Your task to perform on an android device: make emails show in primary in the gmail app Image 0: 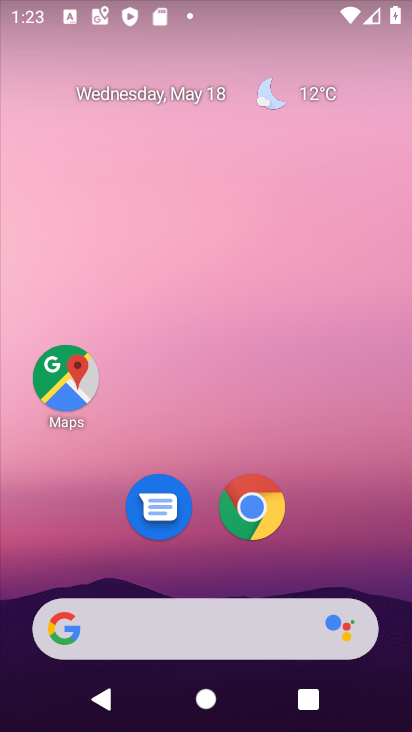
Step 0: drag from (384, 580) to (289, 97)
Your task to perform on an android device: make emails show in primary in the gmail app Image 1: 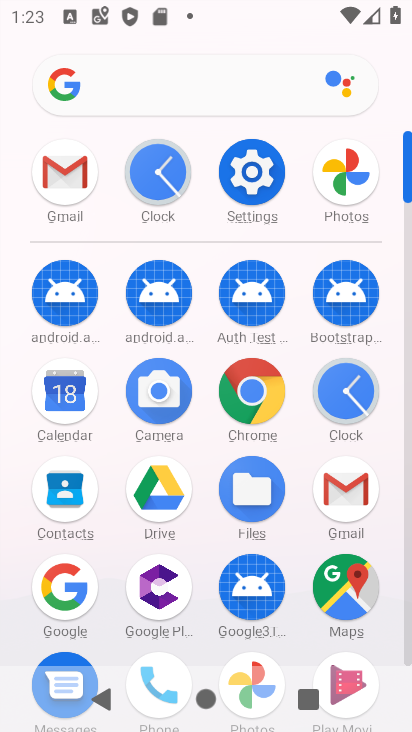
Step 1: click (410, 650)
Your task to perform on an android device: make emails show in primary in the gmail app Image 2: 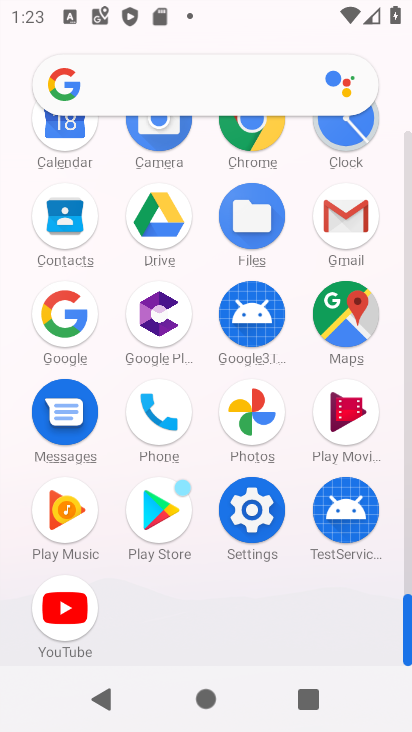
Step 2: click (346, 216)
Your task to perform on an android device: make emails show in primary in the gmail app Image 3: 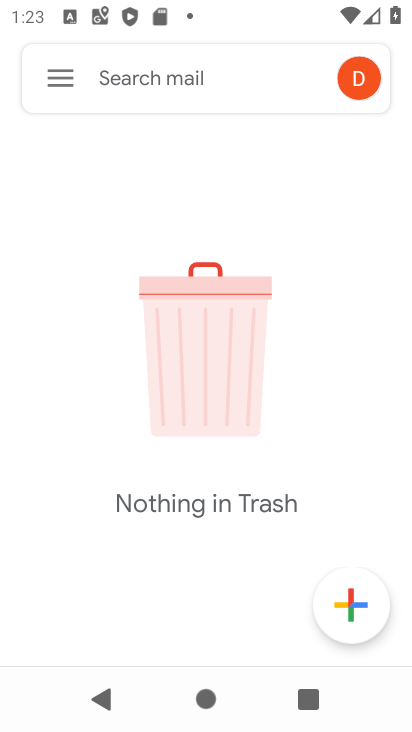
Step 3: click (74, 75)
Your task to perform on an android device: make emails show in primary in the gmail app Image 4: 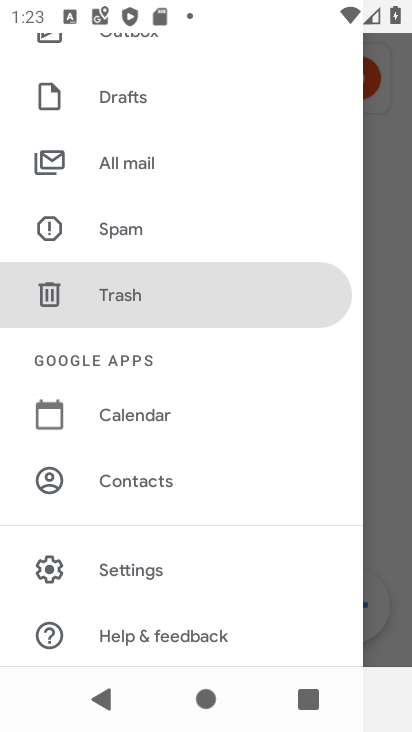
Step 4: click (132, 568)
Your task to perform on an android device: make emails show in primary in the gmail app Image 5: 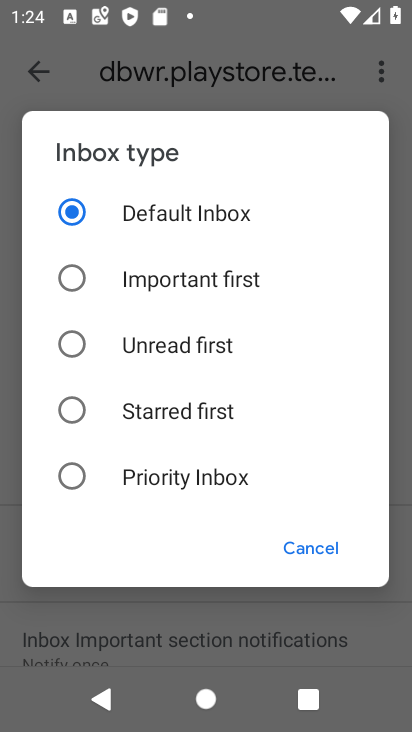
Step 5: click (339, 544)
Your task to perform on an android device: make emails show in primary in the gmail app Image 6: 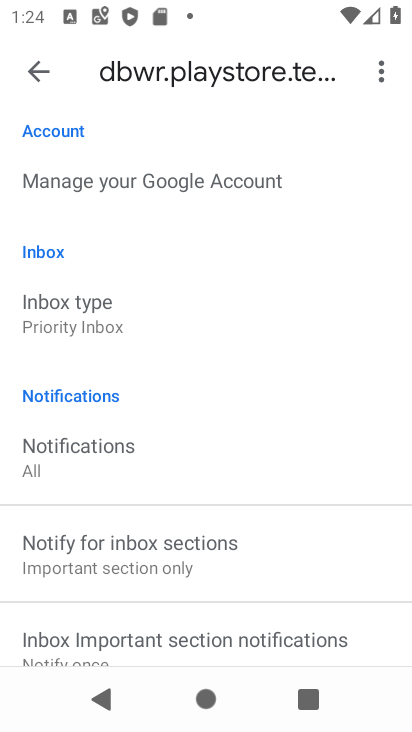
Step 6: click (63, 299)
Your task to perform on an android device: make emails show in primary in the gmail app Image 7: 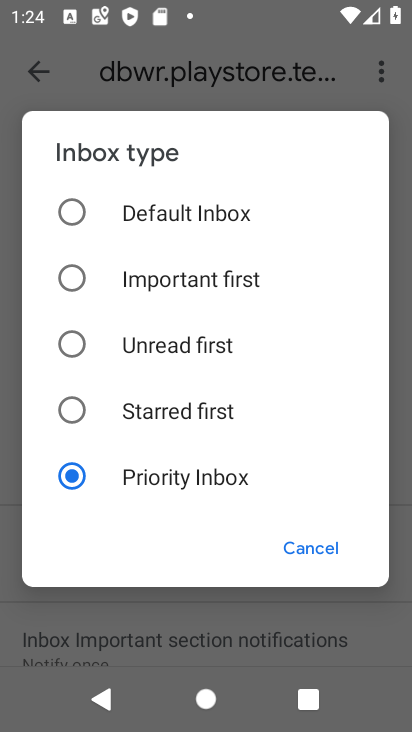
Step 7: click (72, 207)
Your task to perform on an android device: make emails show in primary in the gmail app Image 8: 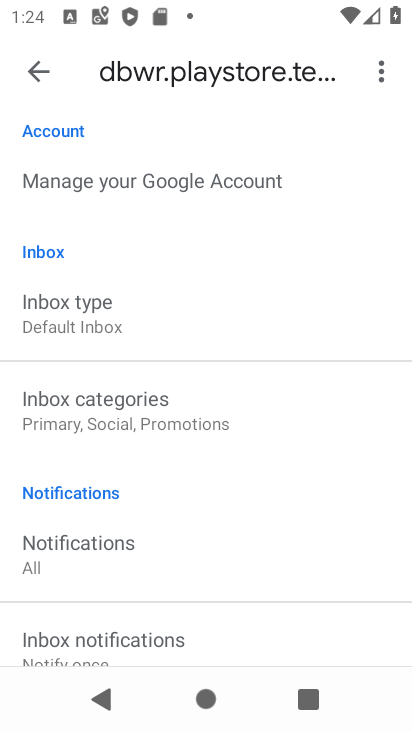
Step 8: click (106, 432)
Your task to perform on an android device: make emails show in primary in the gmail app Image 9: 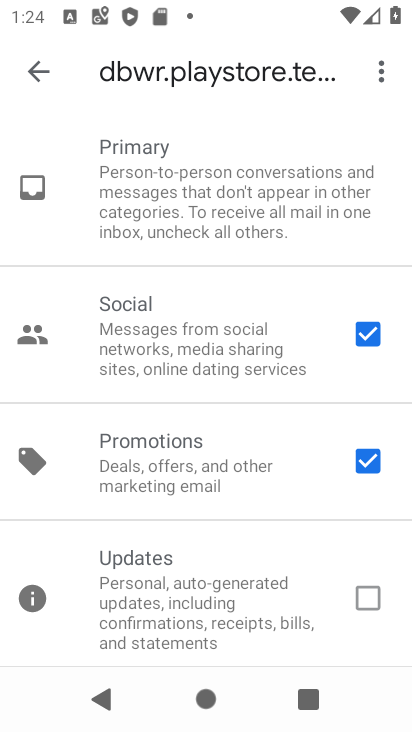
Step 9: click (353, 462)
Your task to perform on an android device: make emails show in primary in the gmail app Image 10: 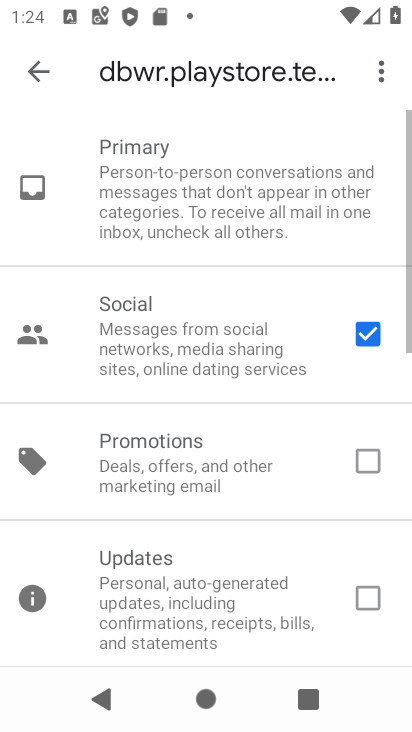
Step 10: click (364, 336)
Your task to perform on an android device: make emails show in primary in the gmail app Image 11: 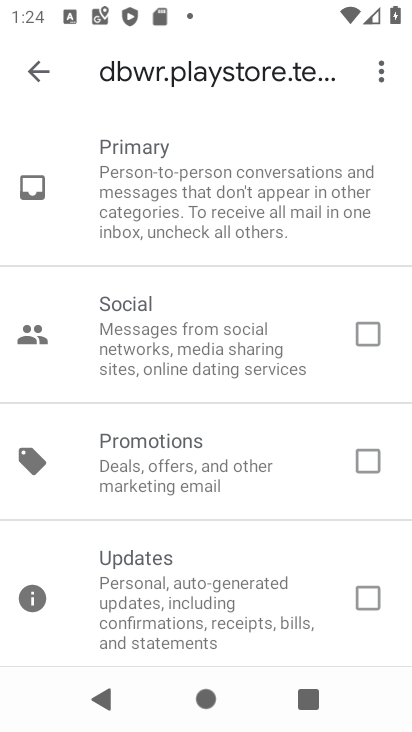
Step 11: task complete